Your task to perform on an android device: find snoozed emails in the gmail app Image 0: 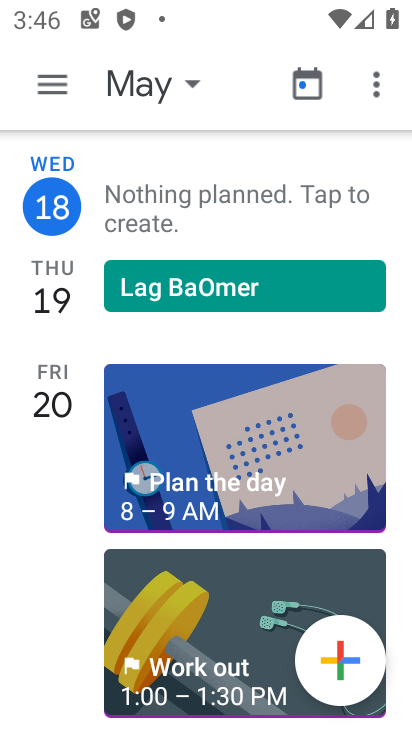
Step 0: press home button
Your task to perform on an android device: find snoozed emails in the gmail app Image 1: 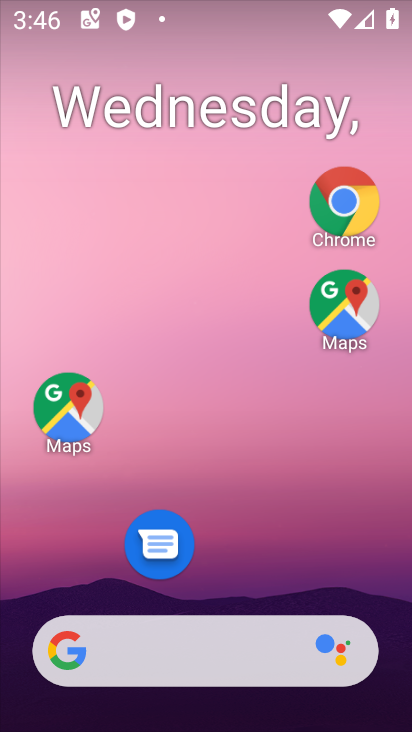
Step 1: click (226, 37)
Your task to perform on an android device: find snoozed emails in the gmail app Image 2: 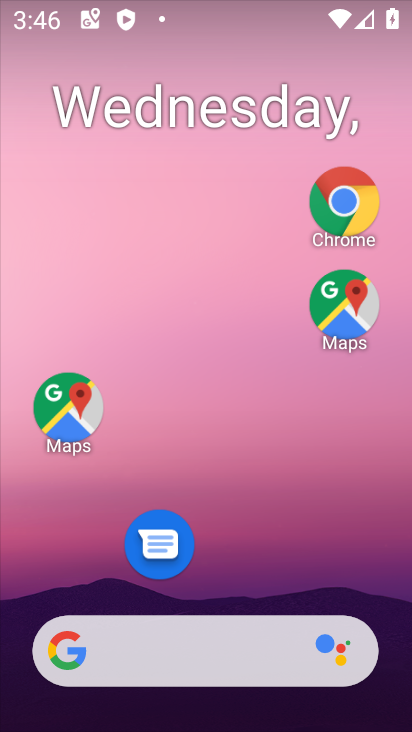
Step 2: press home button
Your task to perform on an android device: find snoozed emails in the gmail app Image 3: 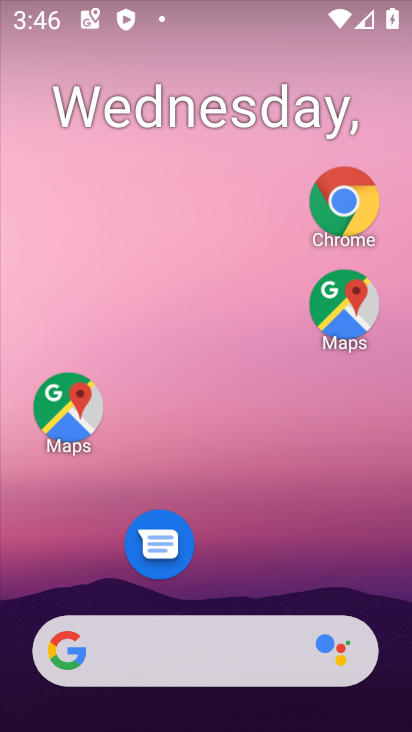
Step 3: drag from (244, 480) to (228, 52)
Your task to perform on an android device: find snoozed emails in the gmail app Image 4: 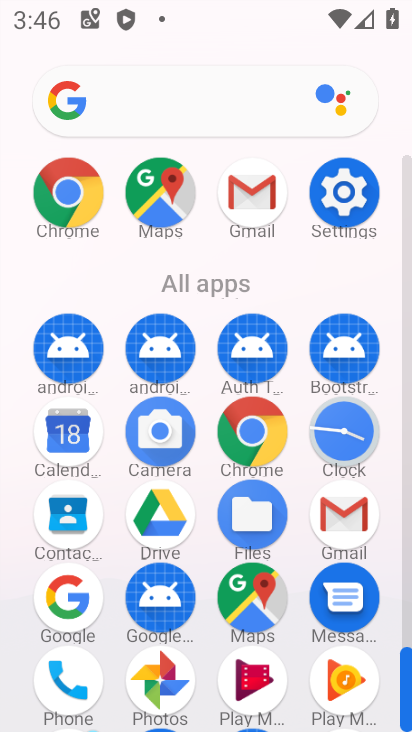
Step 4: click (246, 224)
Your task to perform on an android device: find snoozed emails in the gmail app Image 5: 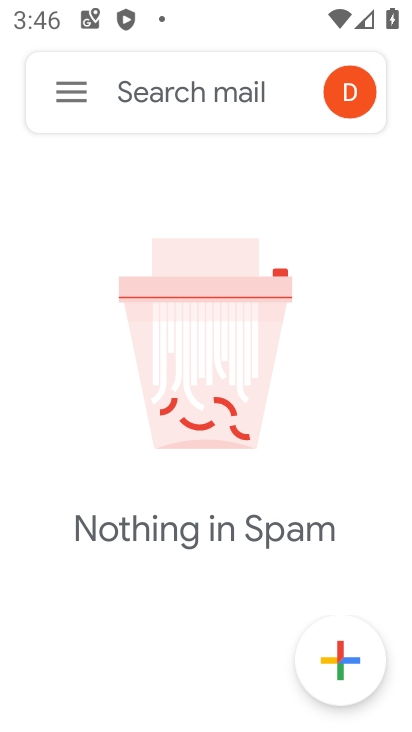
Step 5: click (68, 105)
Your task to perform on an android device: find snoozed emails in the gmail app Image 6: 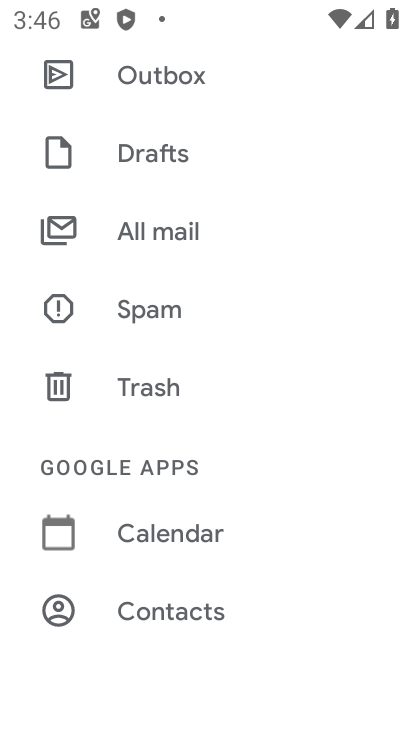
Step 6: drag from (200, 317) to (196, 610)
Your task to perform on an android device: find snoozed emails in the gmail app Image 7: 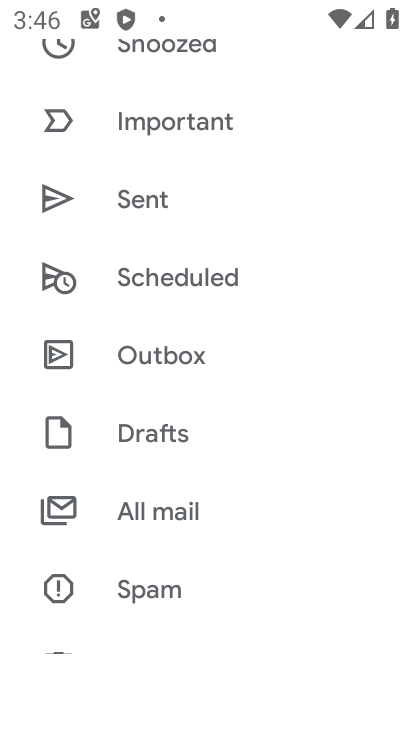
Step 7: click (163, 45)
Your task to perform on an android device: find snoozed emails in the gmail app Image 8: 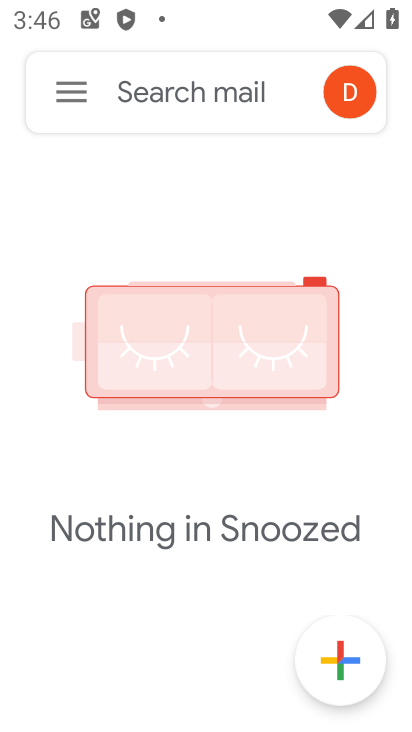
Step 8: task complete